Your task to perform on an android device: Open wifi settings Image 0: 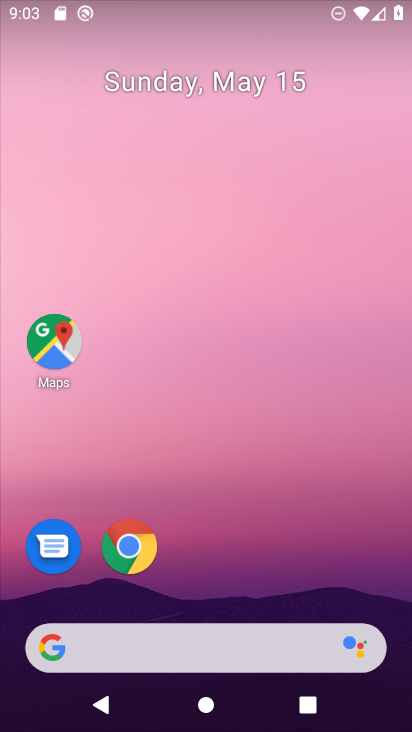
Step 0: drag from (283, 493) to (255, 70)
Your task to perform on an android device: Open wifi settings Image 1: 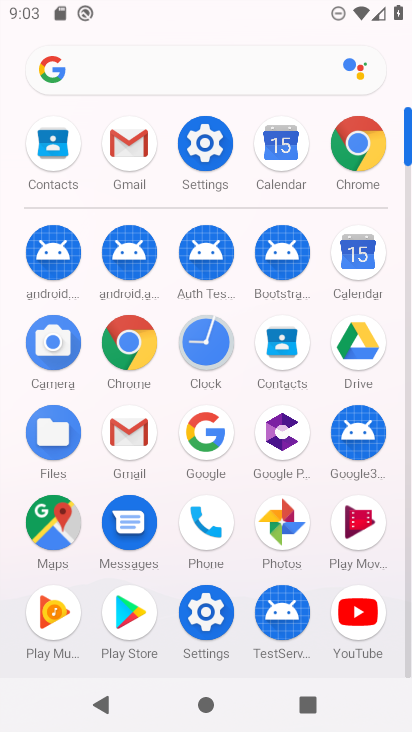
Step 1: click (205, 139)
Your task to perform on an android device: Open wifi settings Image 2: 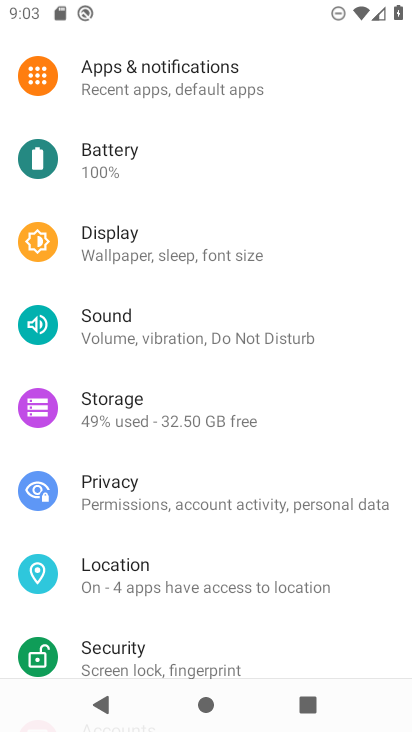
Step 2: drag from (218, 188) to (204, 516)
Your task to perform on an android device: Open wifi settings Image 3: 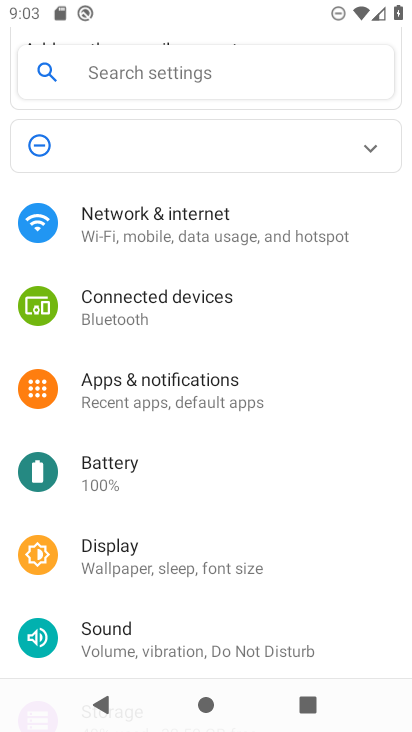
Step 3: click (228, 215)
Your task to perform on an android device: Open wifi settings Image 4: 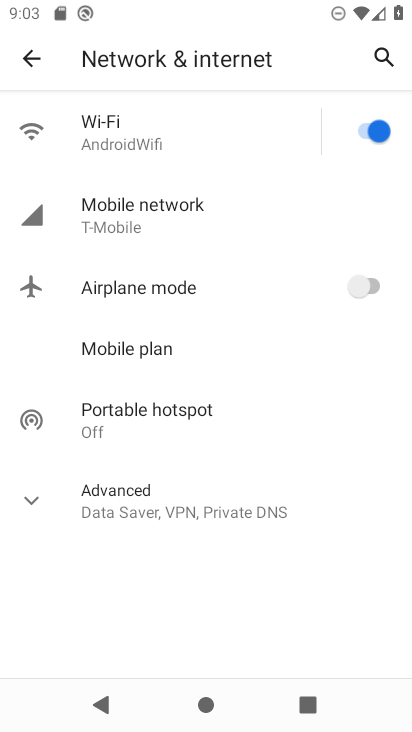
Step 4: click (147, 118)
Your task to perform on an android device: Open wifi settings Image 5: 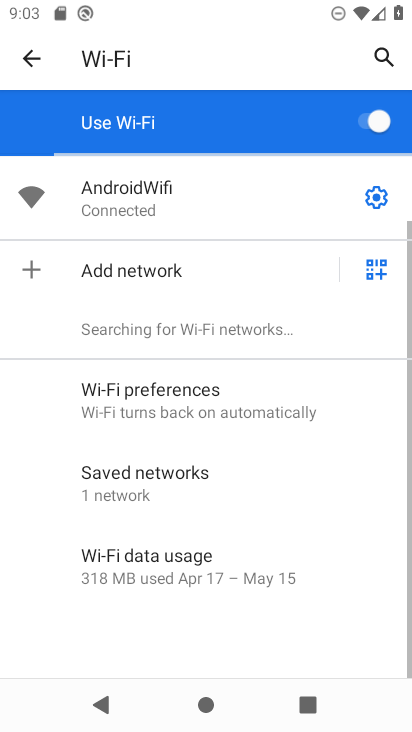
Step 5: task complete